Your task to perform on an android device: set an alarm Image 0: 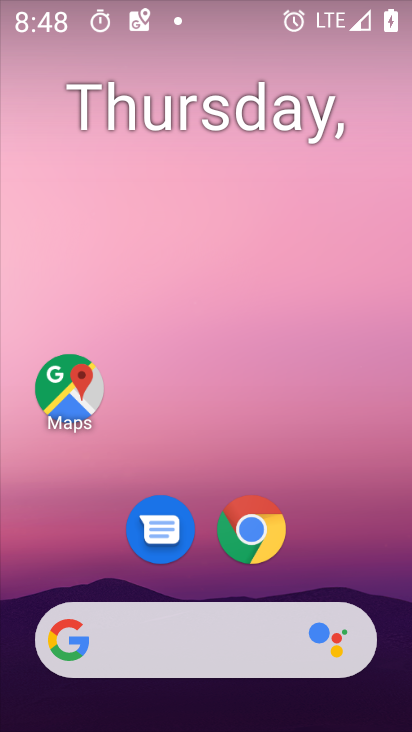
Step 0: drag from (365, 572) to (376, 198)
Your task to perform on an android device: set an alarm Image 1: 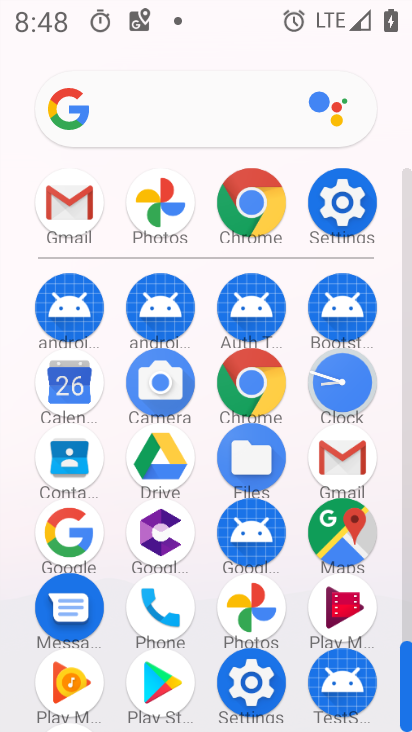
Step 1: click (346, 383)
Your task to perform on an android device: set an alarm Image 2: 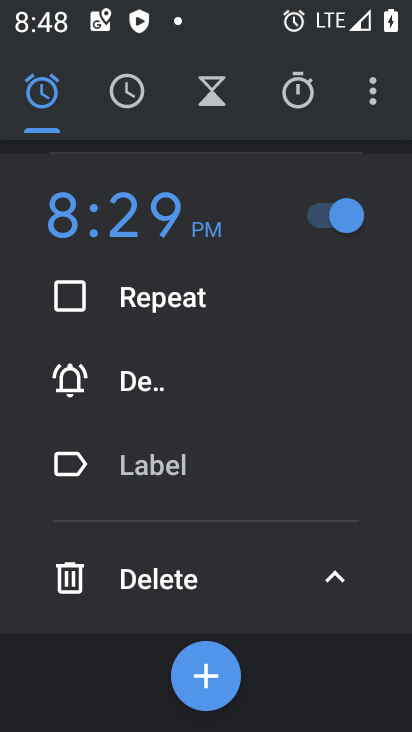
Step 2: click (233, 678)
Your task to perform on an android device: set an alarm Image 3: 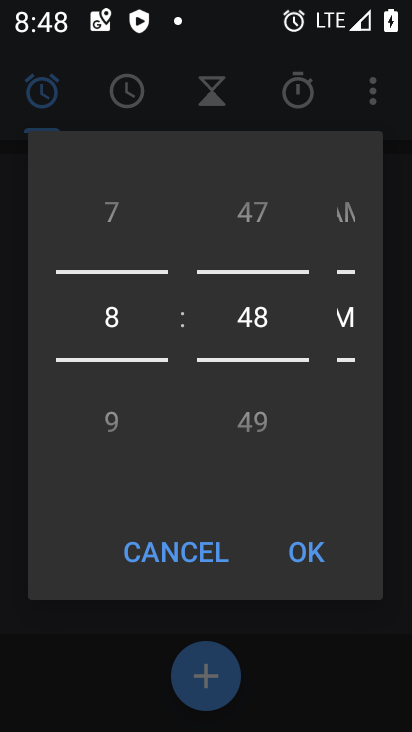
Step 3: click (300, 571)
Your task to perform on an android device: set an alarm Image 4: 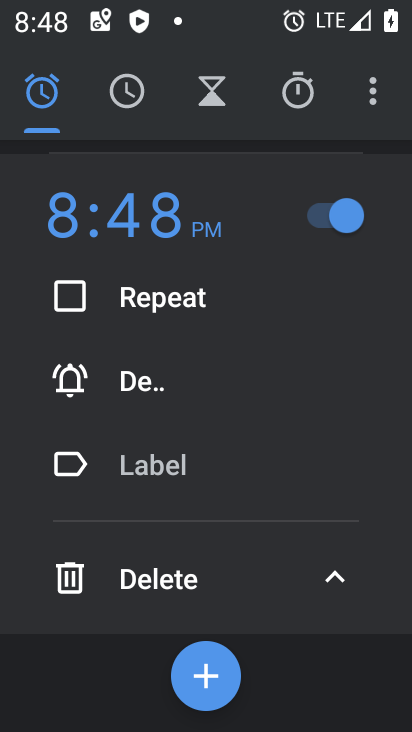
Step 4: task complete